Your task to perform on an android device: Search for Italian restaurants on Maps Image 0: 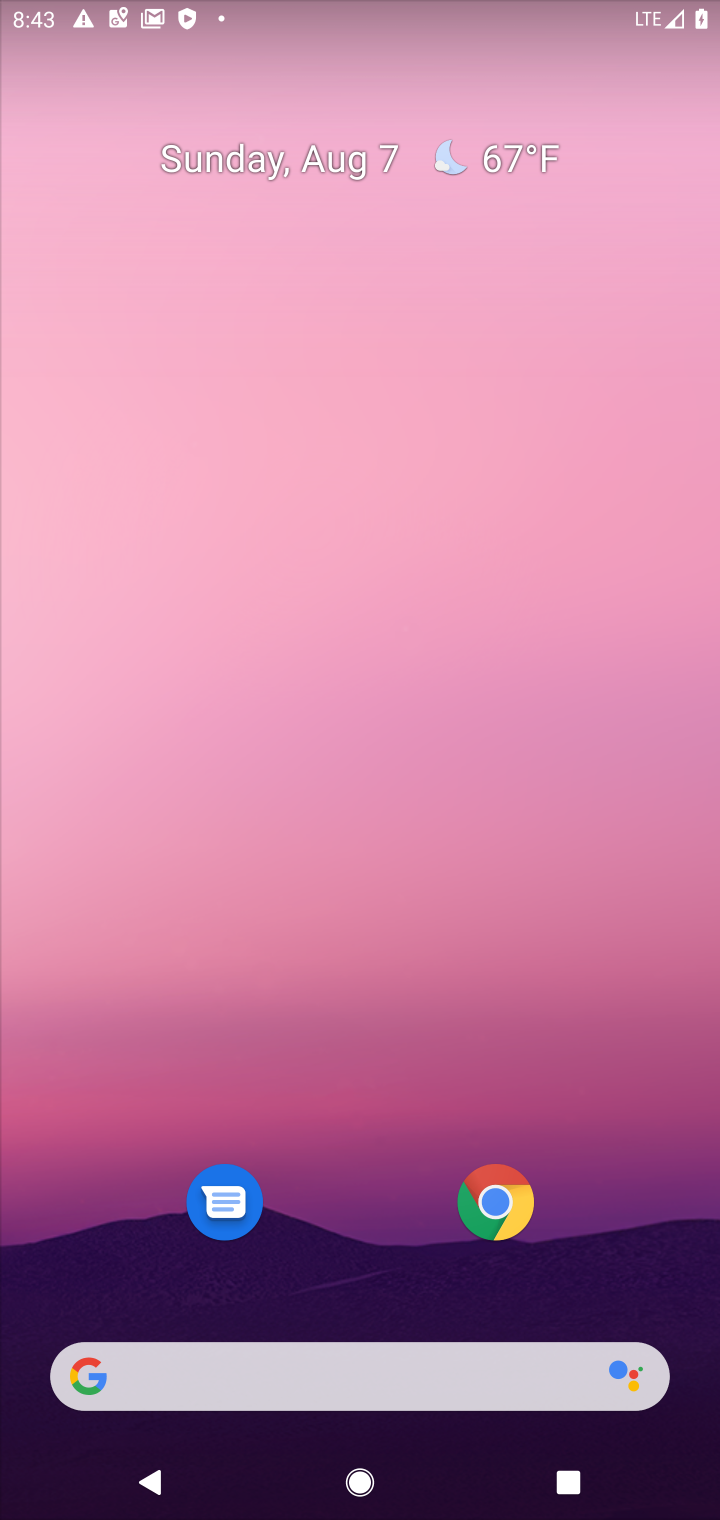
Step 0: drag from (385, 1228) to (352, 560)
Your task to perform on an android device: Search for Italian restaurants on Maps Image 1: 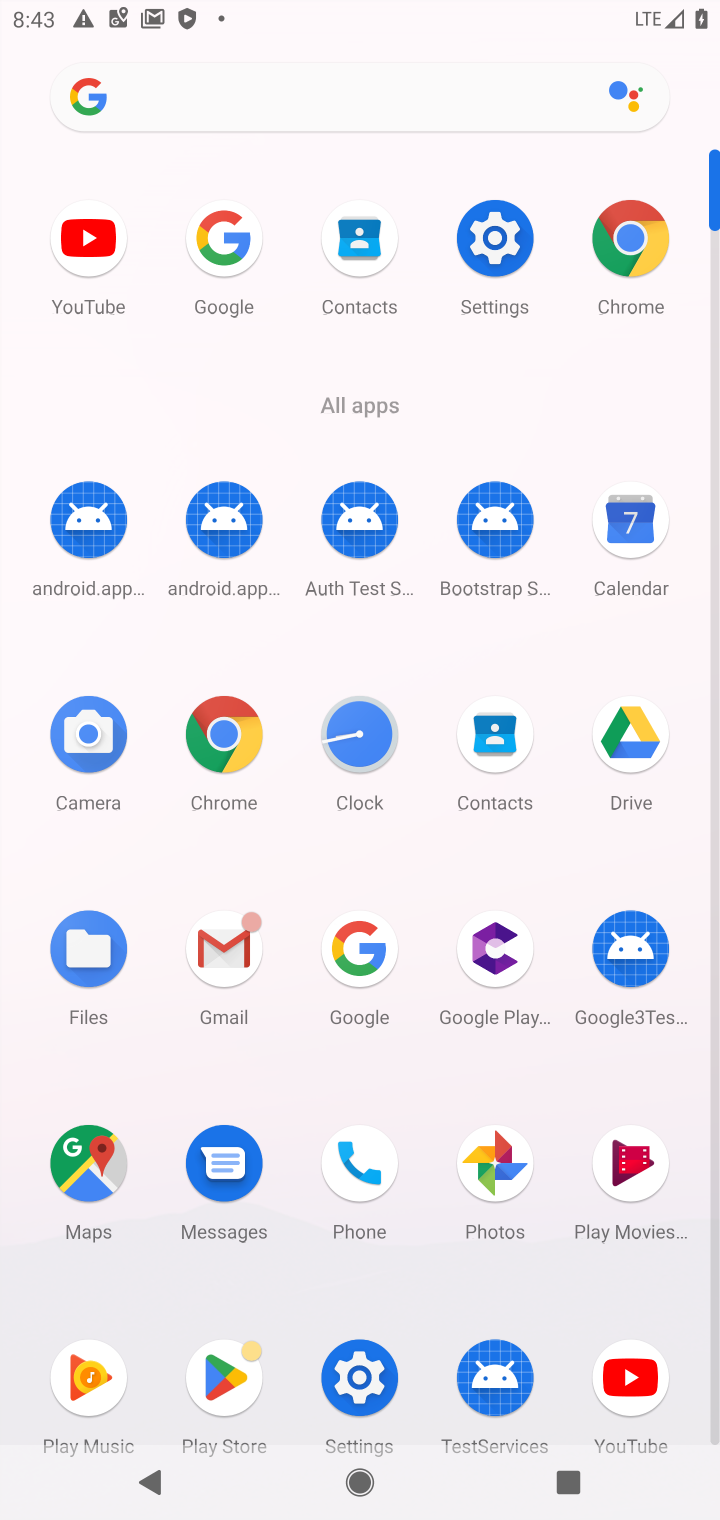
Step 1: click (63, 1151)
Your task to perform on an android device: Search for Italian restaurants on Maps Image 2: 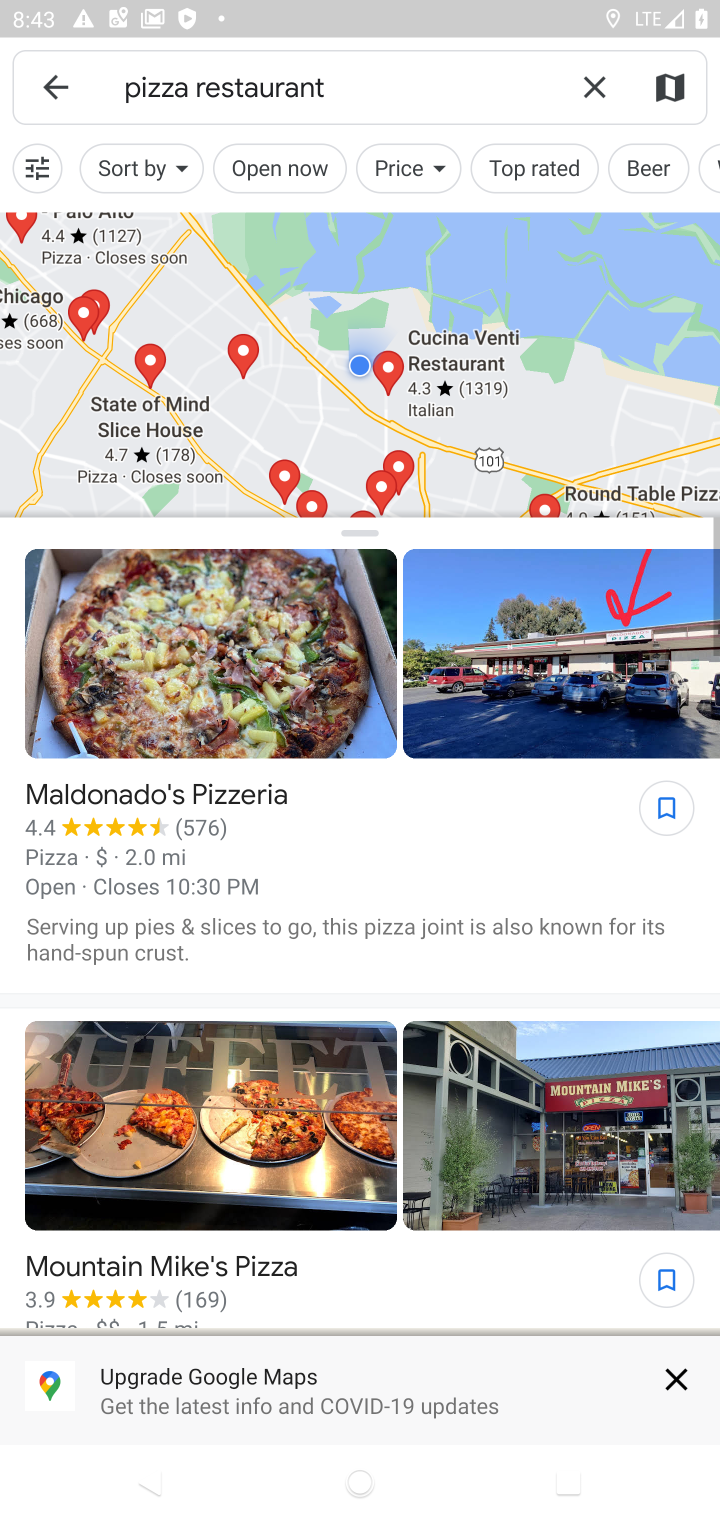
Step 2: click (507, 85)
Your task to perform on an android device: Search for Italian restaurants on Maps Image 3: 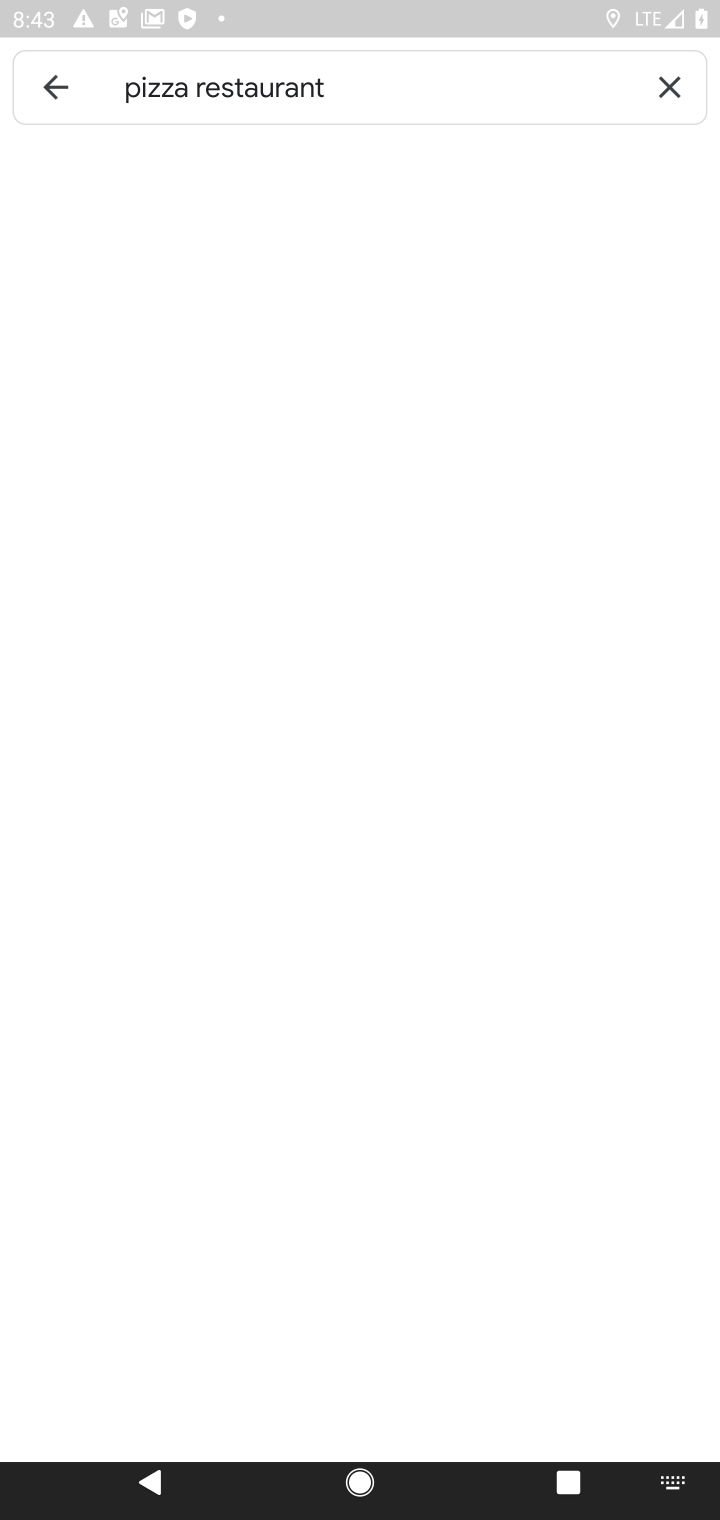
Step 3: click (685, 74)
Your task to perform on an android device: Search for Italian restaurants on Maps Image 4: 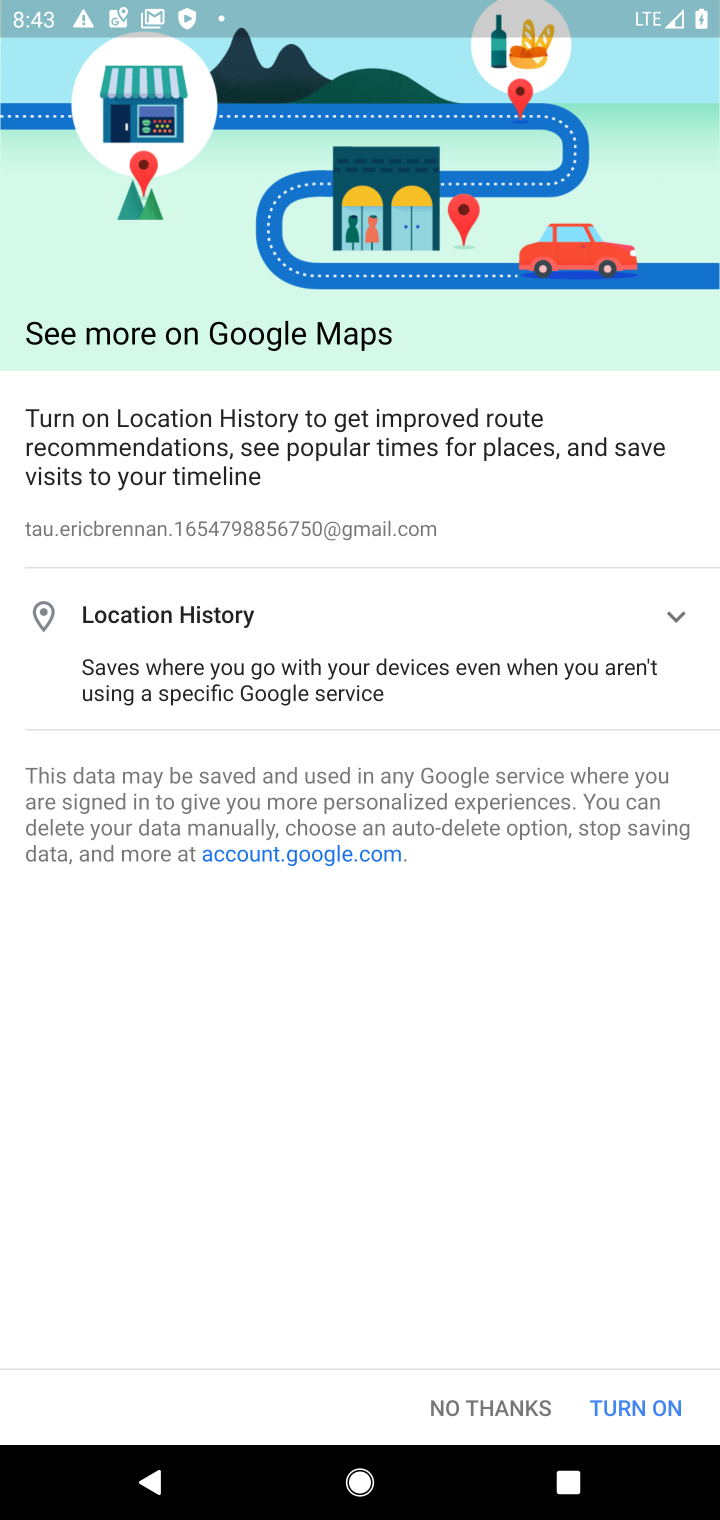
Step 4: type "italian restaurants"
Your task to perform on an android device: Search for Italian restaurants on Maps Image 5: 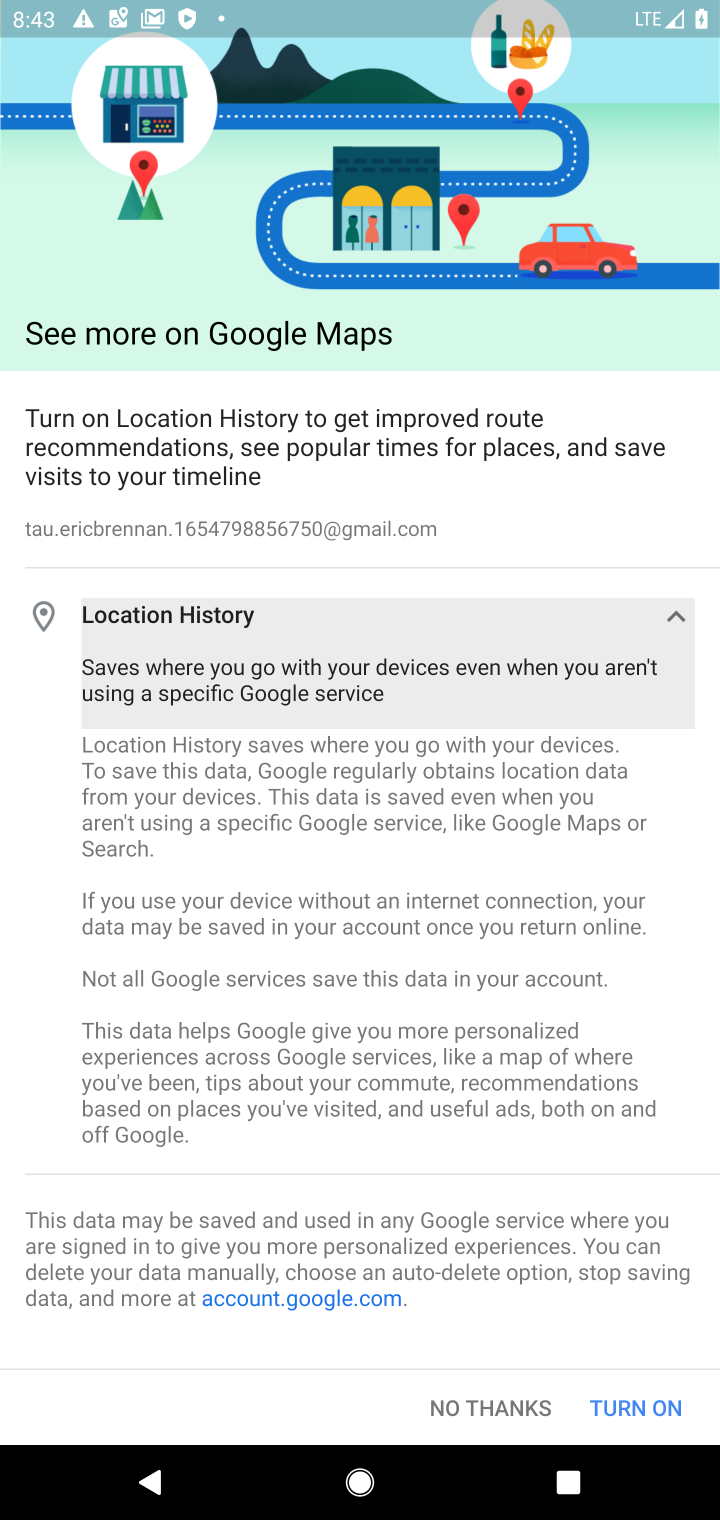
Step 5: click (505, 1409)
Your task to perform on an android device: Search for Italian restaurants on Maps Image 6: 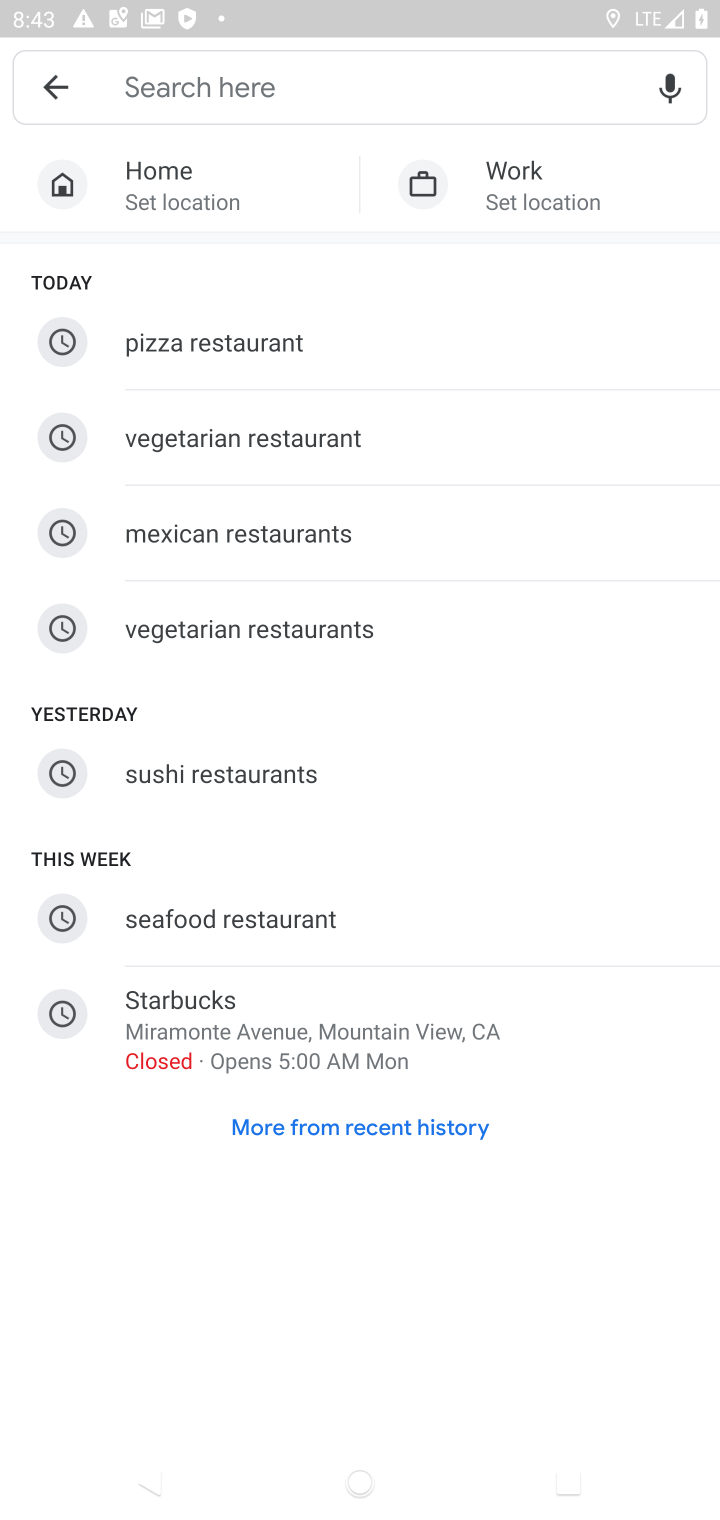
Step 6: click (314, 81)
Your task to perform on an android device: Search for Italian restaurants on Maps Image 7: 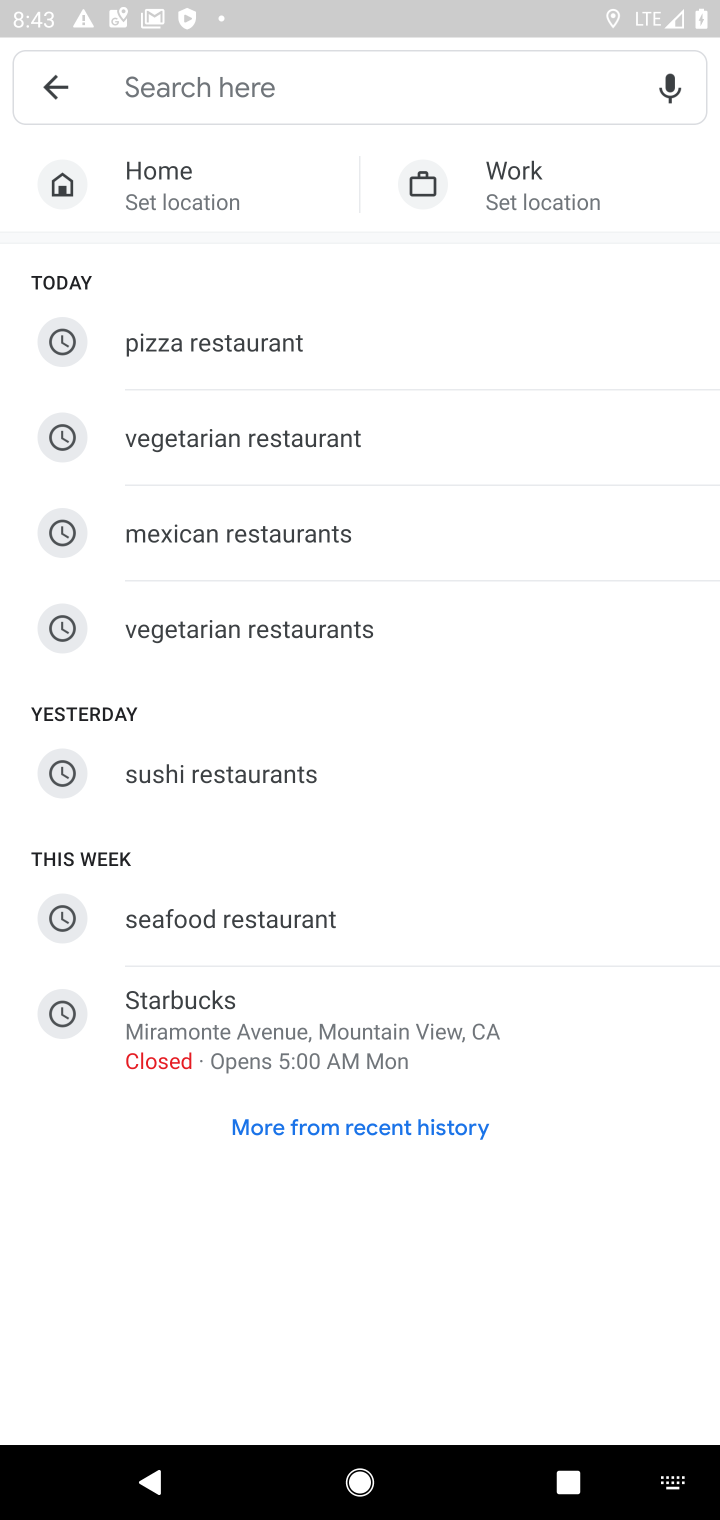
Step 7: type "italian restaurants"
Your task to perform on an android device: Search for Italian restaurants on Maps Image 8: 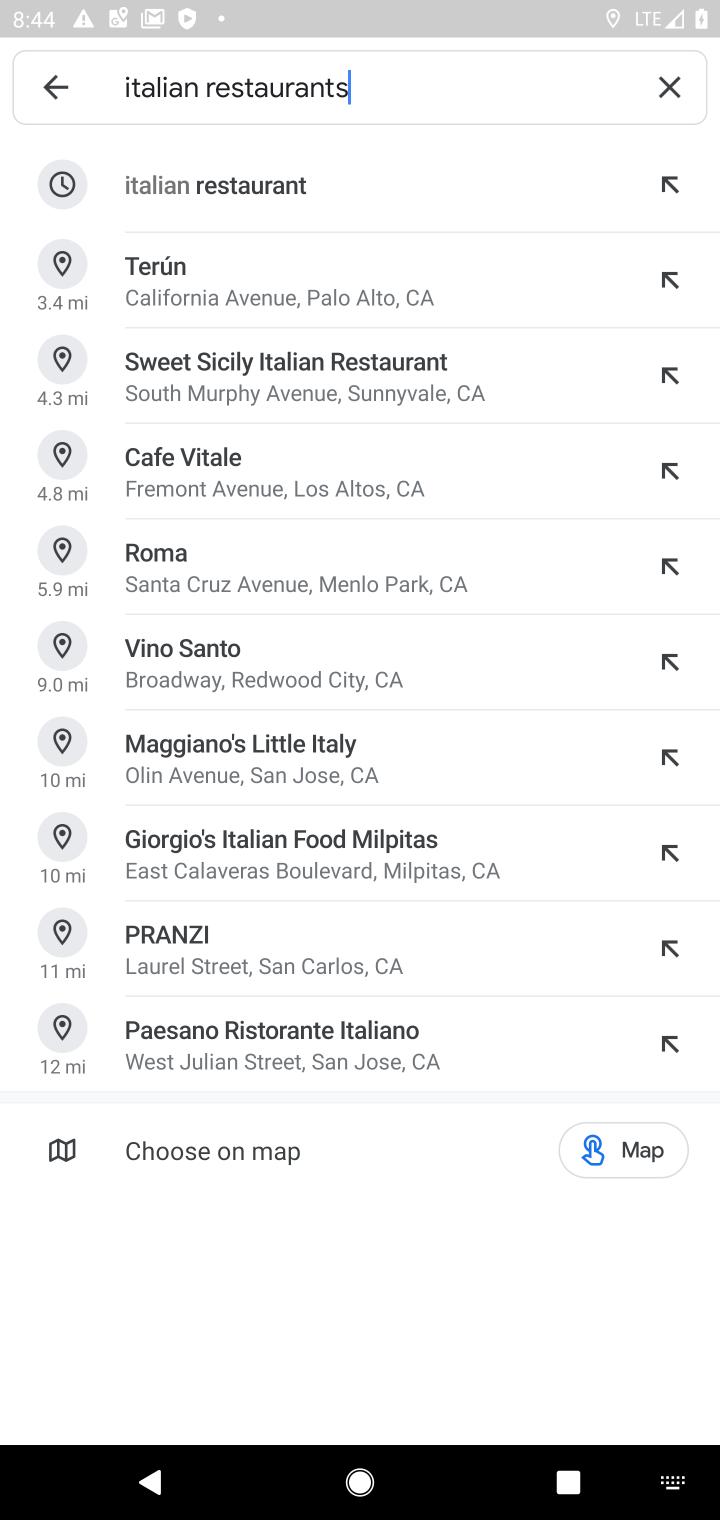
Step 8: click (332, 173)
Your task to perform on an android device: Search for Italian restaurants on Maps Image 9: 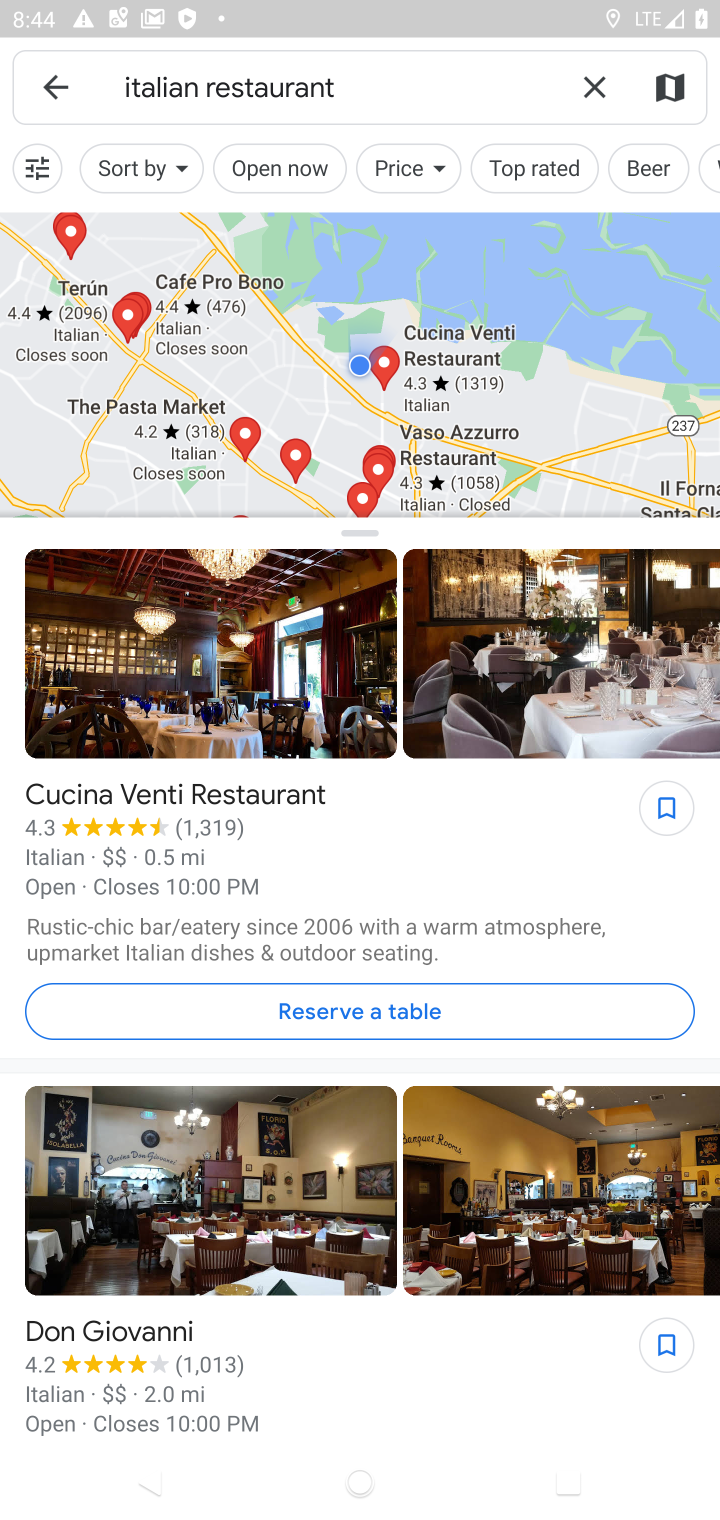
Step 9: task complete